Your task to perform on an android device: turn off location Image 0: 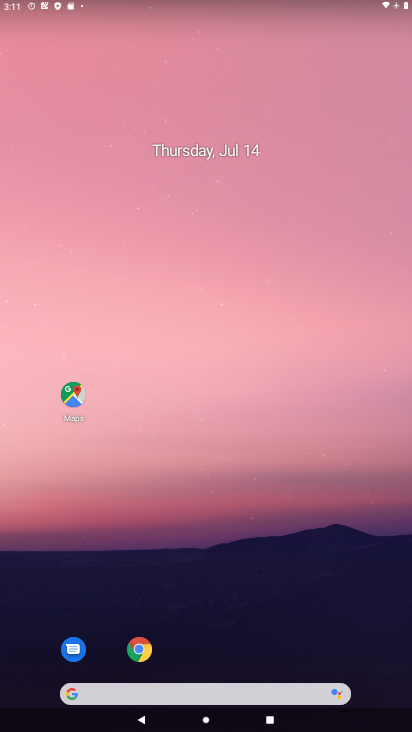
Step 0: drag from (213, 651) to (201, 115)
Your task to perform on an android device: turn off location Image 1: 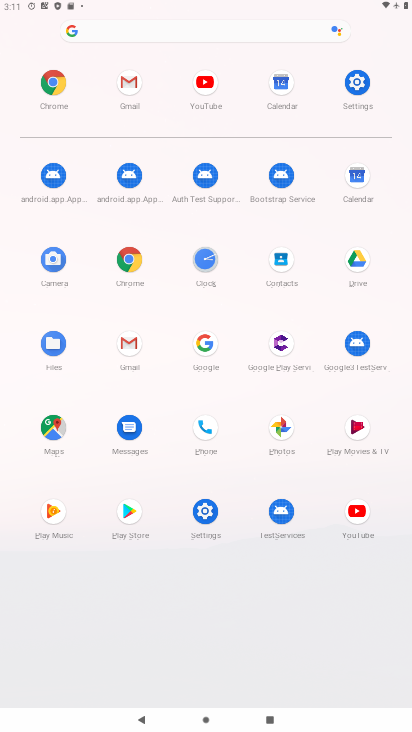
Step 1: click (212, 511)
Your task to perform on an android device: turn off location Image 2: 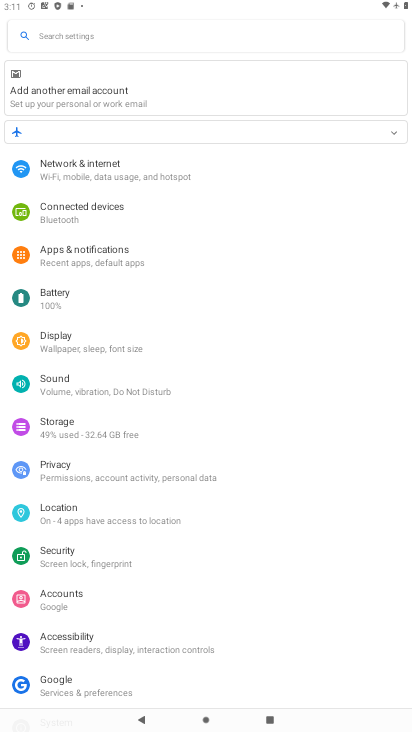
Step 2: click (86, 518)
Your task to perform on an android device: turn off location Image 3: 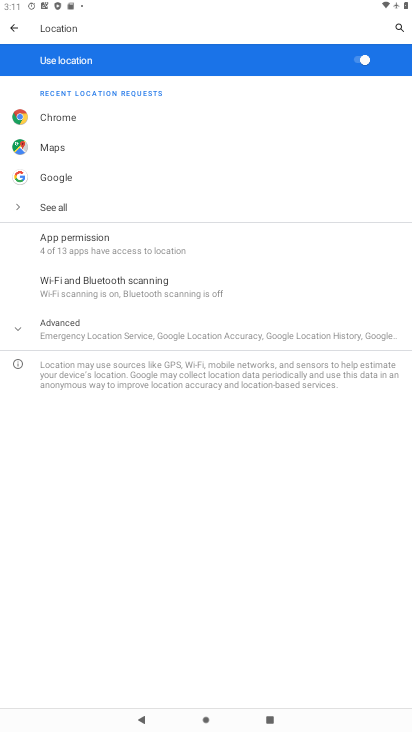
Step 3: click (347, 60)
Your task to perform on an android device: turn off location Image 4: 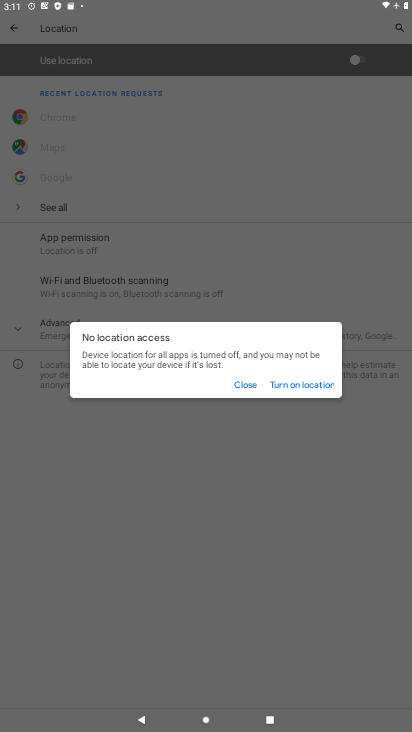
Step 4: task complete